Your task to perform on an android device: all mails in gmail Image 0: 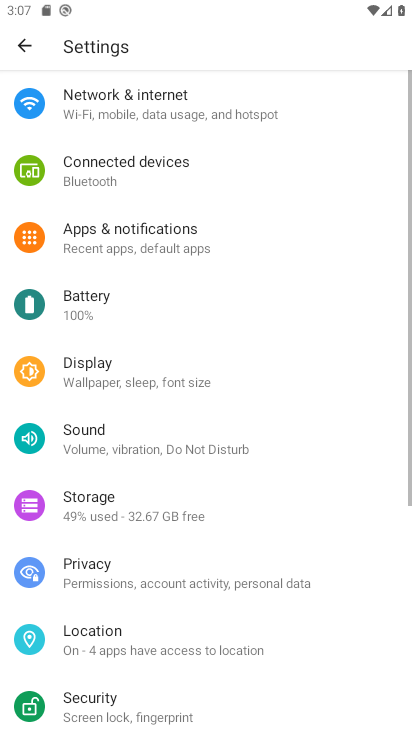
Step 0: press home button
Your task to perform on an android device: all mails in gmail Image 1: 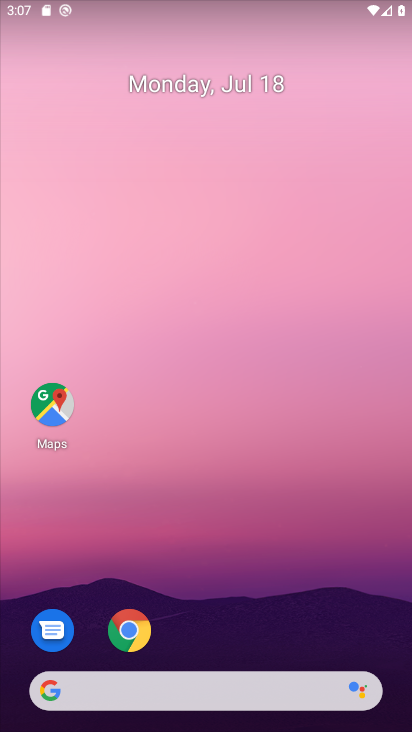
Step 1: drag from (356, 632) to (269, 151)
Your task to perform on an android device: all mails in gmail Image 2: 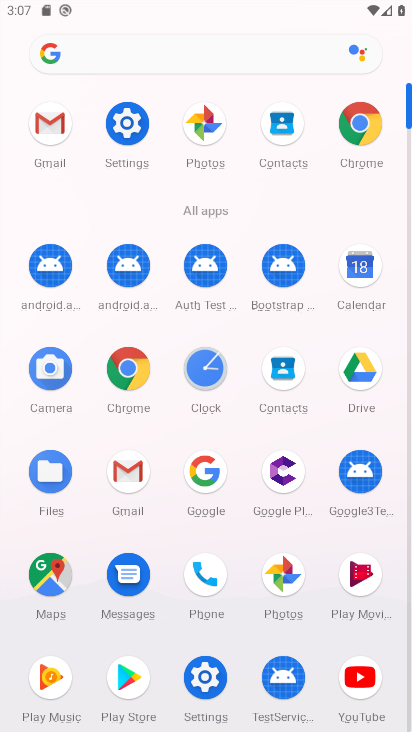
Step 2: click (49, 134)
Your task to perform on an android device: all mails in gmail Image 3: 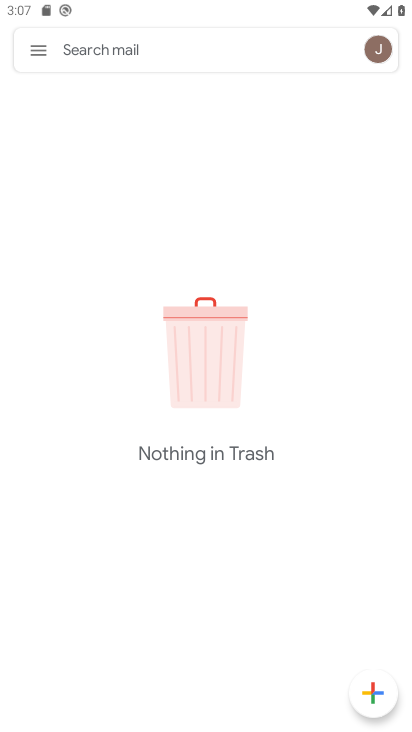
Step 3: click (33, 59)
Your task to perform on an android device: all mails in gmail Image 4: 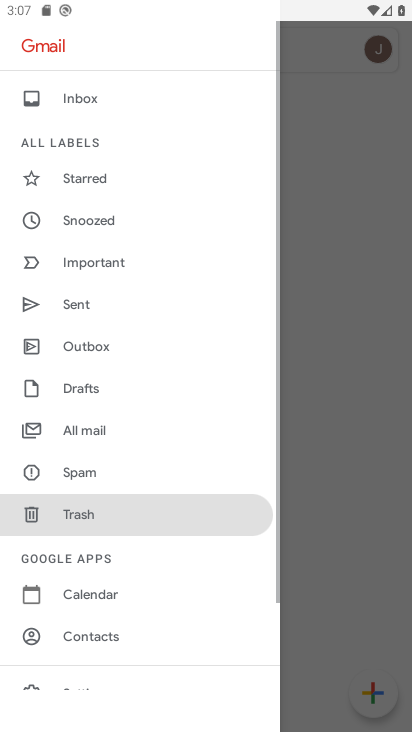
Step 4: click (105, 422)
Your task to perform on an android device: all mails in gmail Image 5: 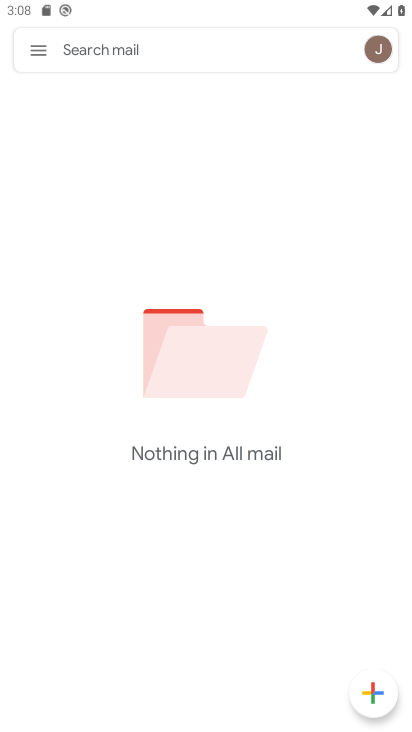
Step 5: task complete